Your task to perform on an android device: Search for sushi restaurants on Maps Image 0: 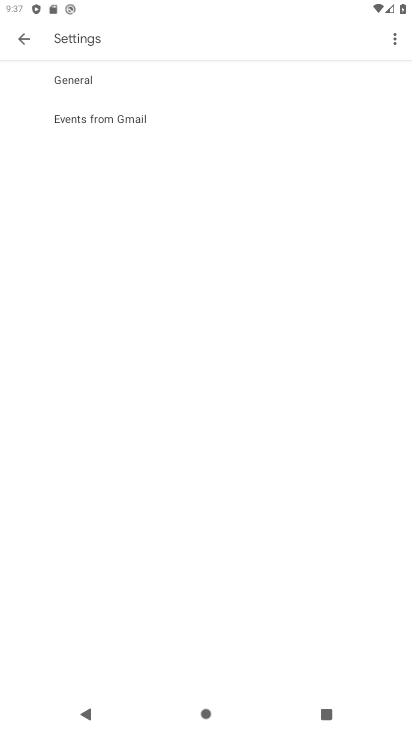
Step 0: press home button
Your task to perform on an android device: Search for sushi restaurants on Maps Image 1: 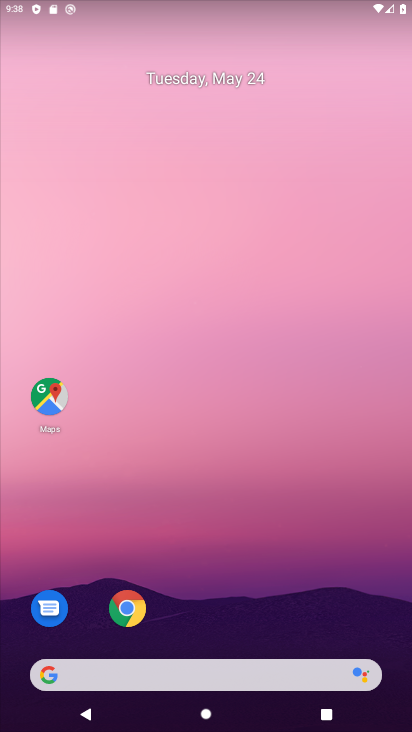
Step 1: click (48, 394)
Your task to perform on an android device: Search for sushi restaurants on Maps Image 2: 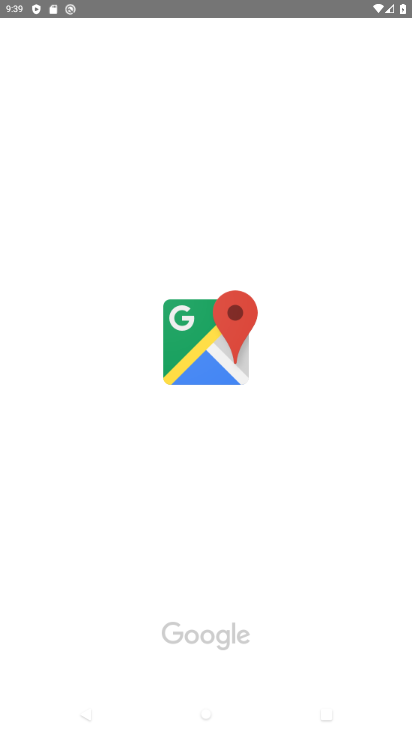
Step 2: task complete